Your task to perform on an android device: Open internet settings Image 0: 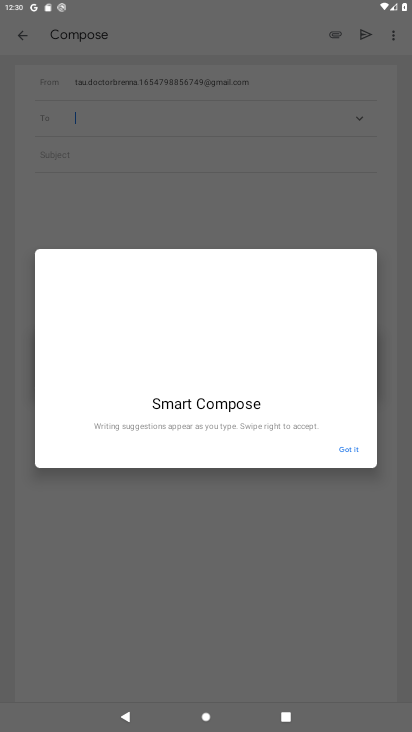
Step 0: press home button
Your task to perform on an android device: Open internet settings Image 1: 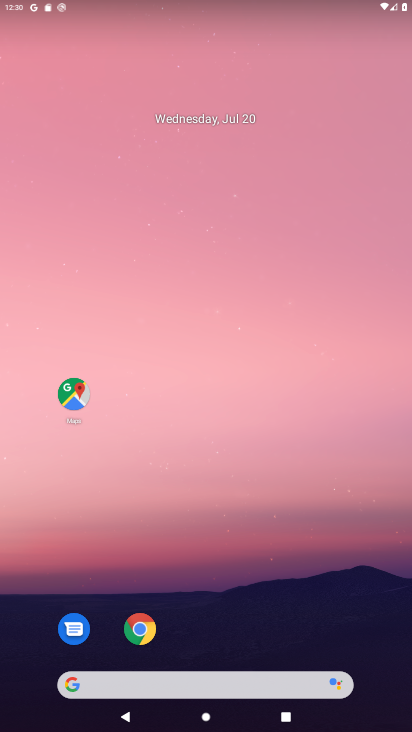
Step 1: drag from (266, 628) to (199, 134)
Your task to perform on an android device: Open internet settings Image 2: 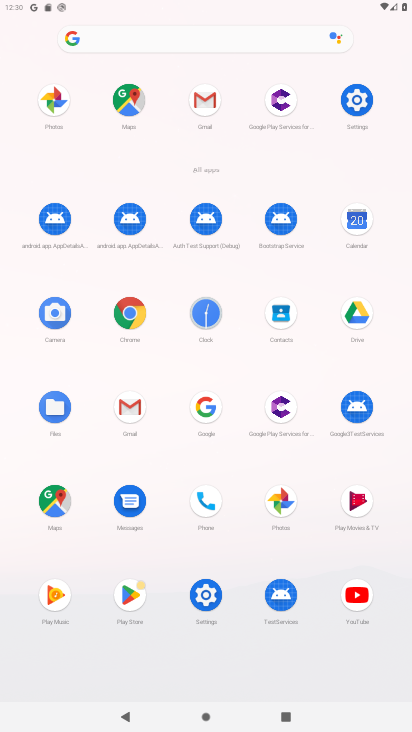
Step 2: click (368, 111)
Your task to perform on an android device: Open internet settings Image 3: 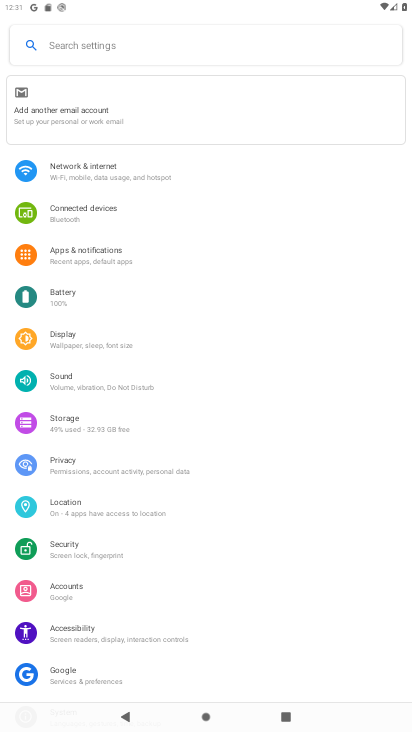
Step 3: click (197, 171)
Your task to perform on an android device: Open internet settings Image 4: 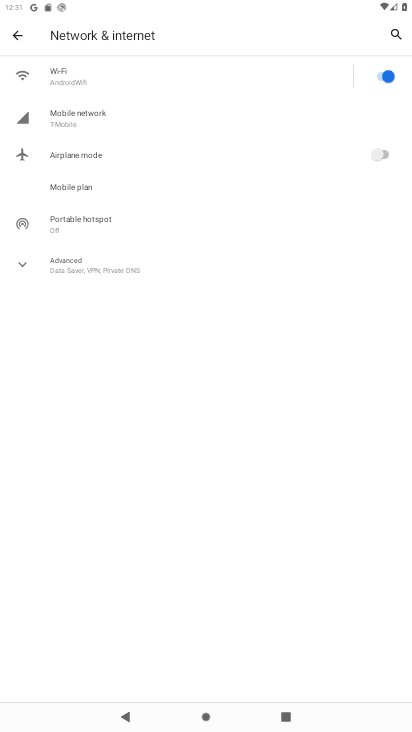
Step 4: task complete